Your task to perform on an android device: find which apps use the phone's location Image 0: 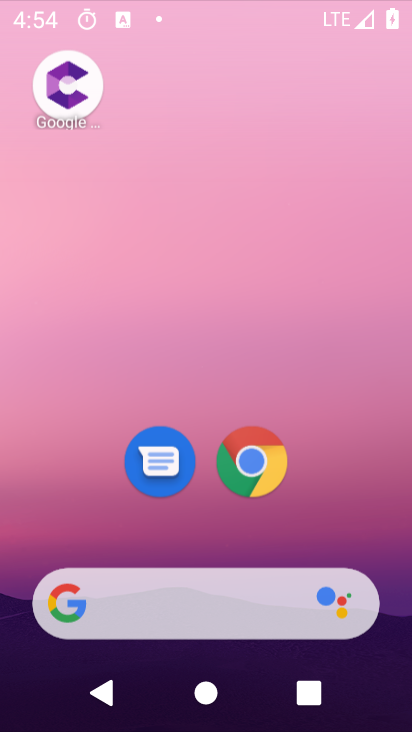
Step 0: click (261, 20)
Your task to perform on an android device: find which apps use the phone's location Image 1: 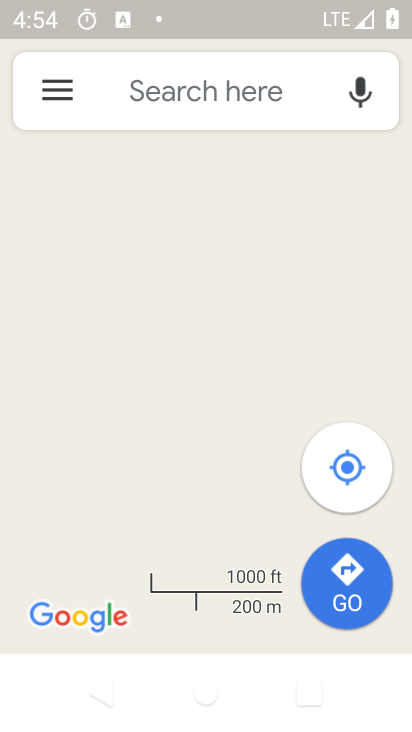
Step 1: press back button
Your task to perform on an android device: find which apps use the phone's location Image 2: 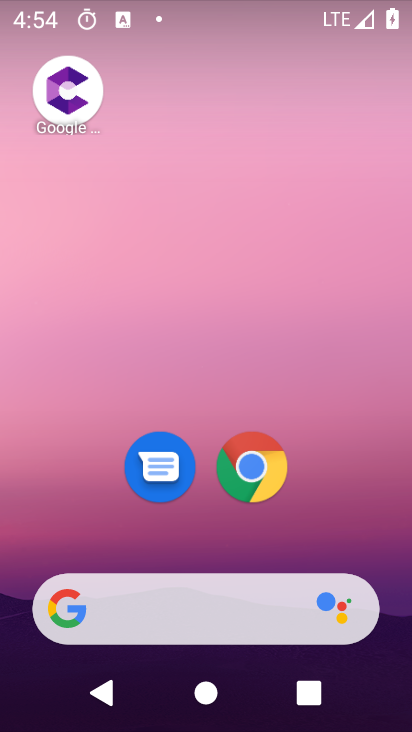
Step 2: press home button
Your task to perform on an android device: find which apps use the phone's location Image 3: 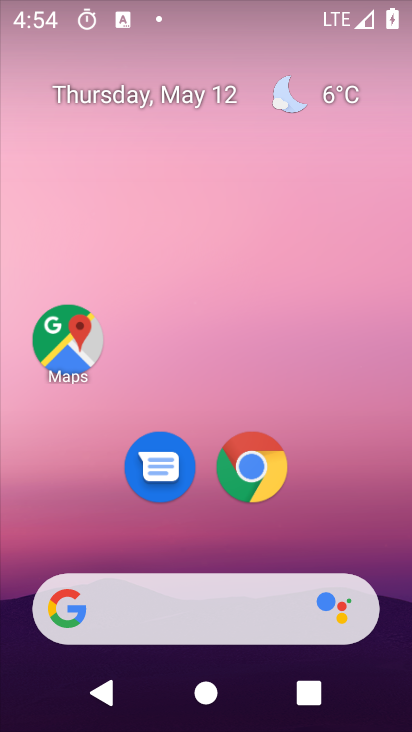
Step 3: drag from (251, 525) to (292, 0)
Your task to perform on an android device: find which apps use the phone's location Image 4: 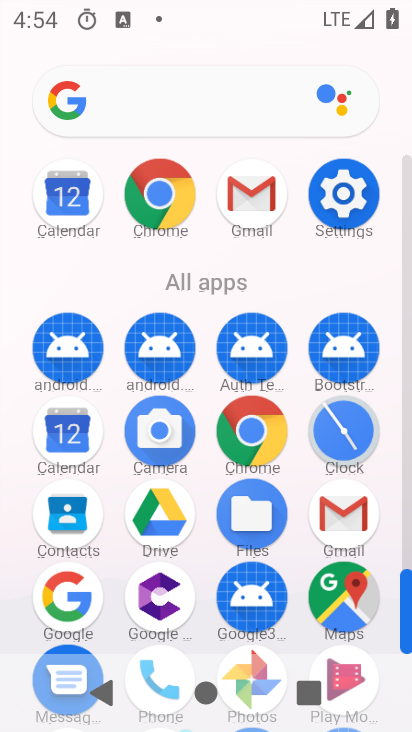
Step 4: click (252, 429)
Your task to perform on an android device: find which apps use the phone's location Image 5: 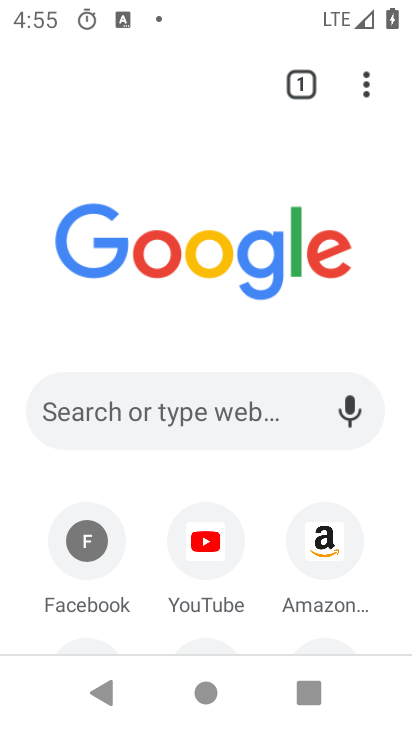
Step 5: press home button
Your task to perform on an android device: find which apps use the phone's location Image 6: 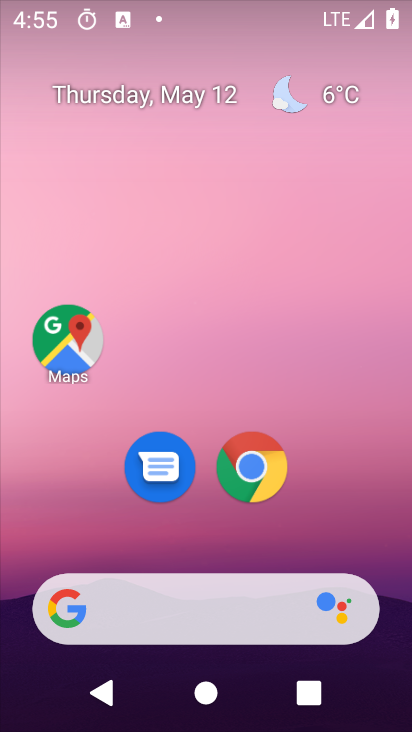
Step 6: drag from (246, 629) to (276, 9)
Your task to perform on an android device: find which apps use the phone's location Image 7: 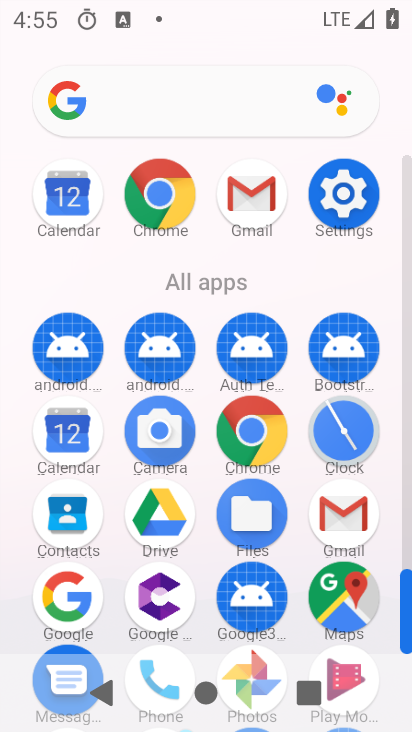
Step 7: click (362, 210)
Your task to perform on an android device: find which apps use the phone's location Image 8: 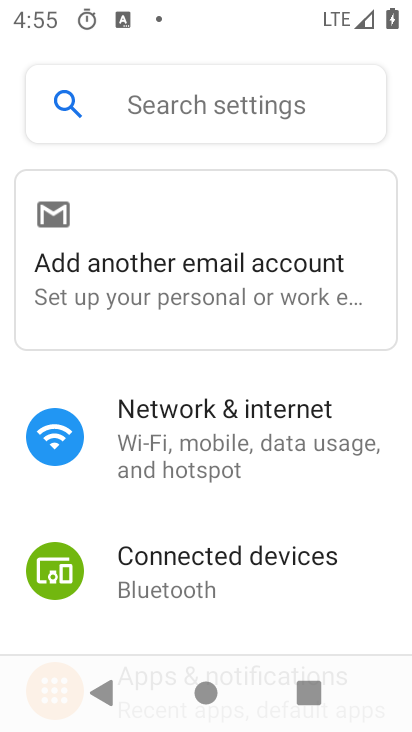
Step 8: drag from (263, 613) to (278, 129)
Your task to perform on an android device: find which apps use the phone's location Image 9: 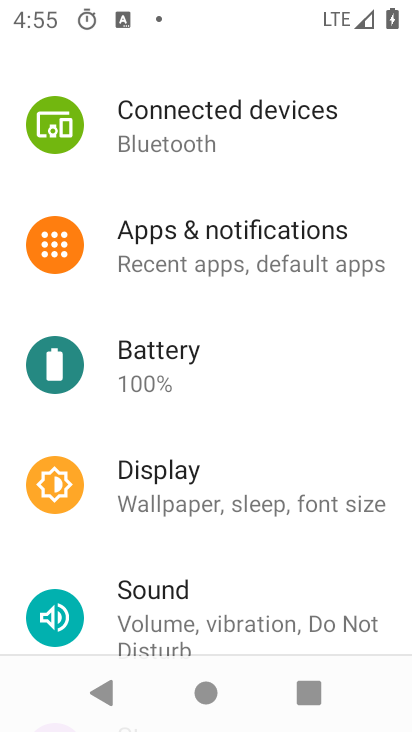
Step 9: drag from (228, 594) to (253, 203)
Your task to perform on an android device: find which apps use the phone's location Image 10: 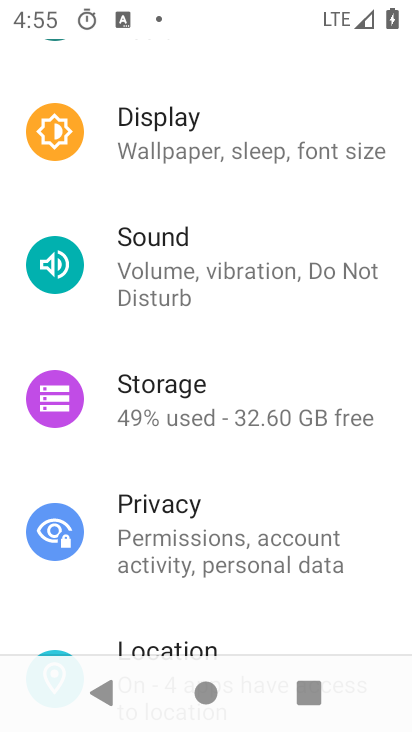
Step 10: drag from (262, 573) to (270, 383)
Your task to perform on an android device: find which apps use the phone's location Image 11: 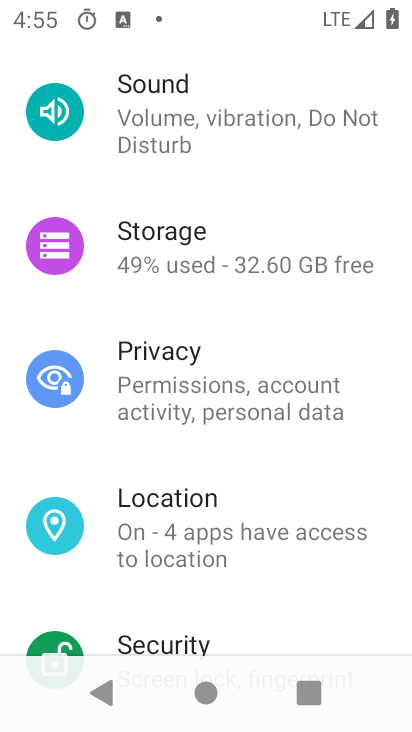
Step 11: click (215, 550)
Your task to perform on an android device: find which apps use the phone's location Image 12: 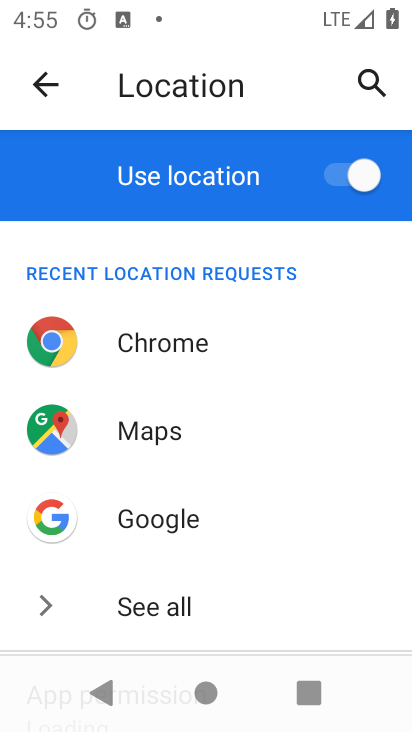
Step 12: task complete